Your task to perform on an android device: Go to Amazon Image 0: 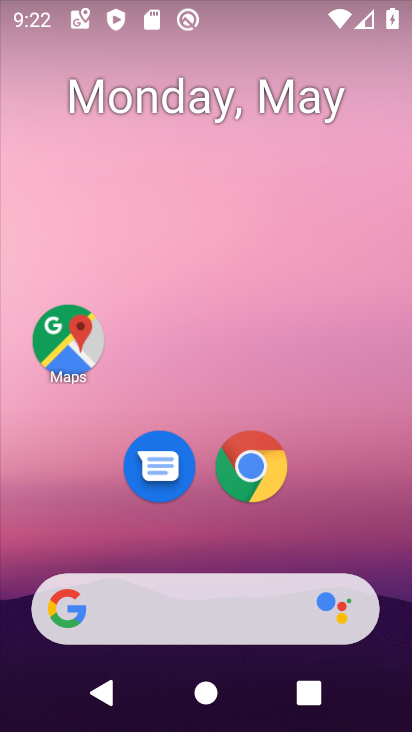
Step 0: press home button
Your task to perform on an android device: Go to Amazon Image 1: 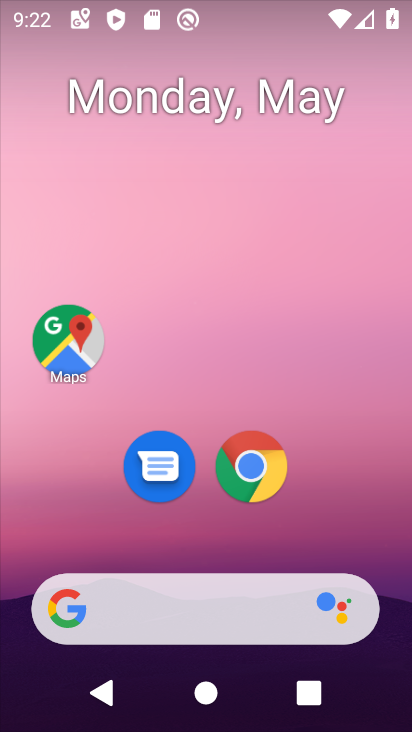
Step 1: click (256, 462)
Your task to perform on an android device: Go to Amazon Image 2: 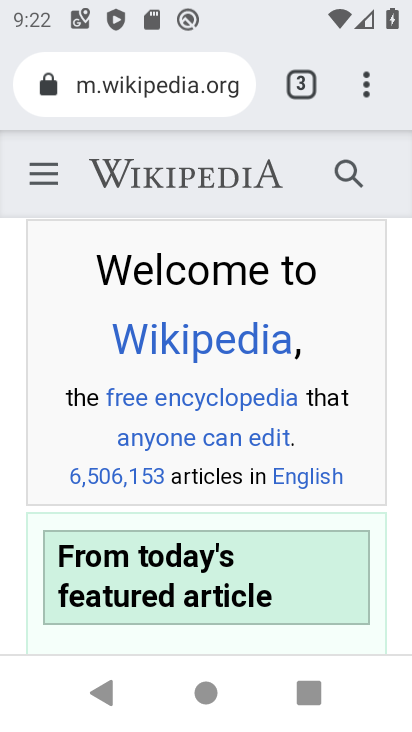
Step 2: click (297, 85)
Your task to perform on an android device: Go to Amazon Image 3: 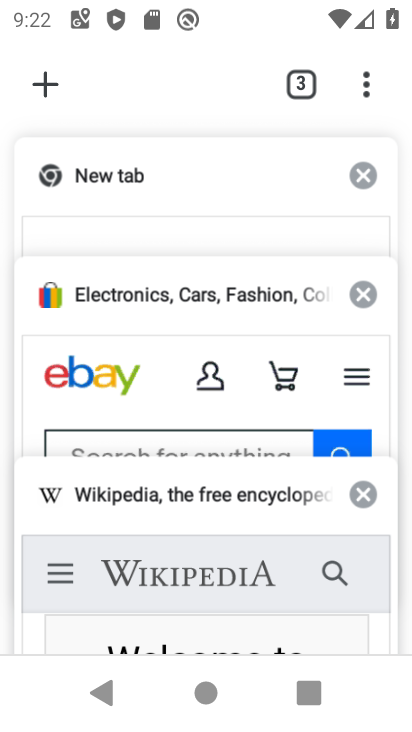
Step 3: click (45, 88)
Your task to perform on an android device: Go to Amazon Image 4: 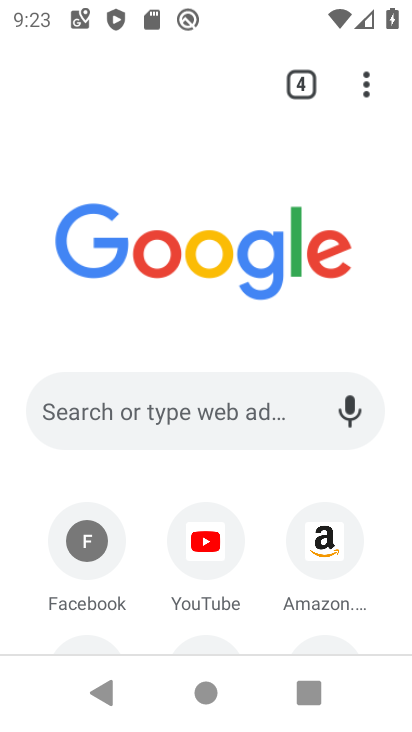
Step 4: click (309, 536)
Your task to perform on an android device: Go to Amazon Image 5: 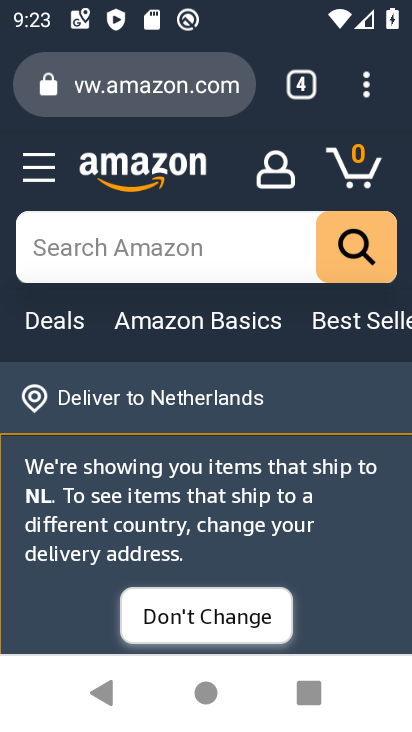
Step 5: task complete